Your task to perform on an android device: Open the web browser Image 0: 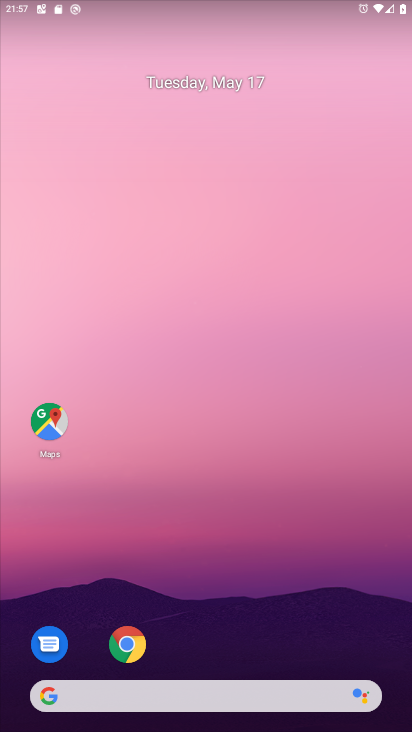
Step 0: press home button
Your task to perform on an android device: Open the web browser Image 1: 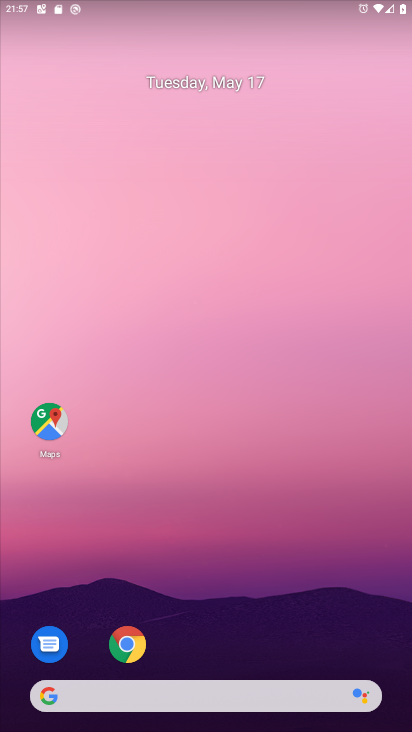
Step 1: drag from (217, 666) to (230, 88)
Your task to perform on an android device: Open the web browser Image 2: 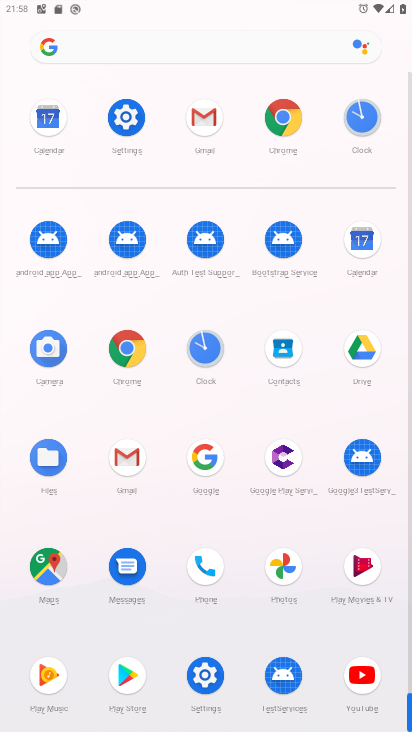
Step 2: click (281, 110)
Your task to perform on an android device: Open the web browser Image 3: 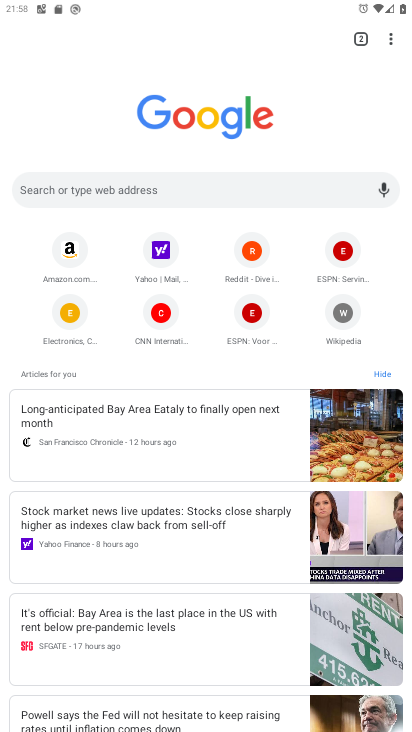
Step 3: task complete